Your task to perform on an android device: toggle wifi Image 0: 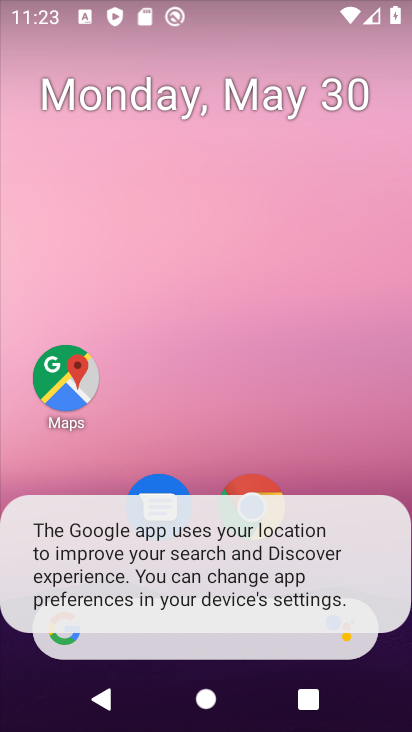
Step 0: drag from (393, 624) to (352, 51)
Your task to perform on an android device: toggle wifi Image 1: 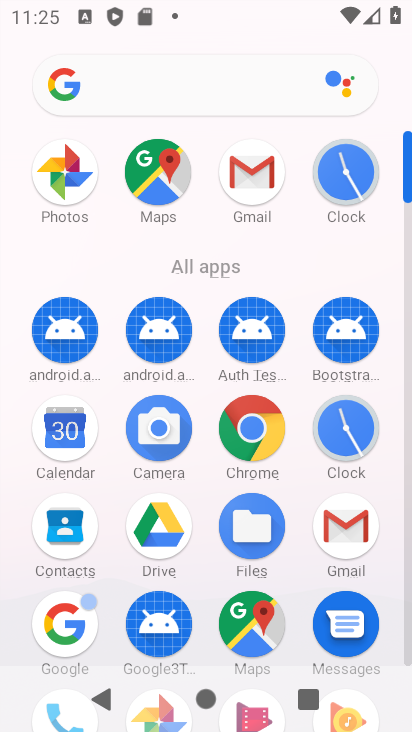
Step 1: drag from (230, 5) to (314, 576)
Your task to perform on an android device: toggle wifi Image 2: 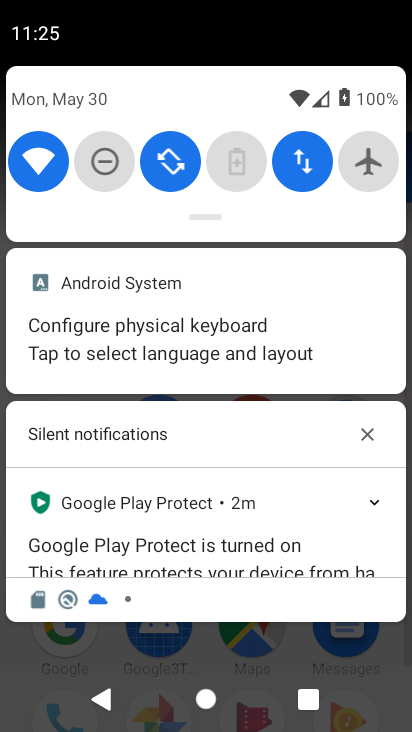
Step 2: click (49, 141)
Your task to perform on an android device: toggle wifi Image 3: 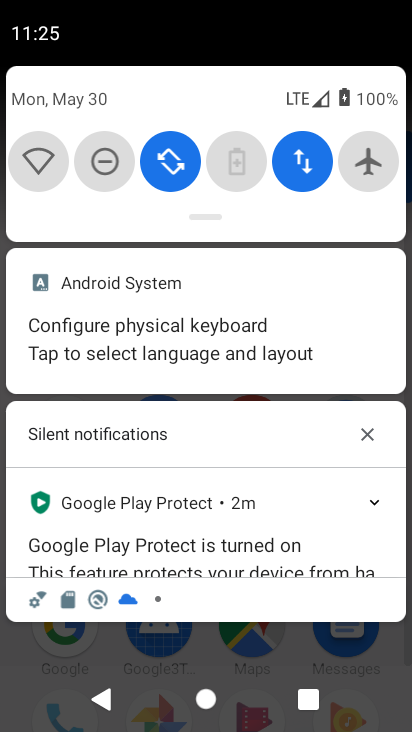
Step 3: task complete